Your task to perform on an android device: Go to privacy settings Image 0: 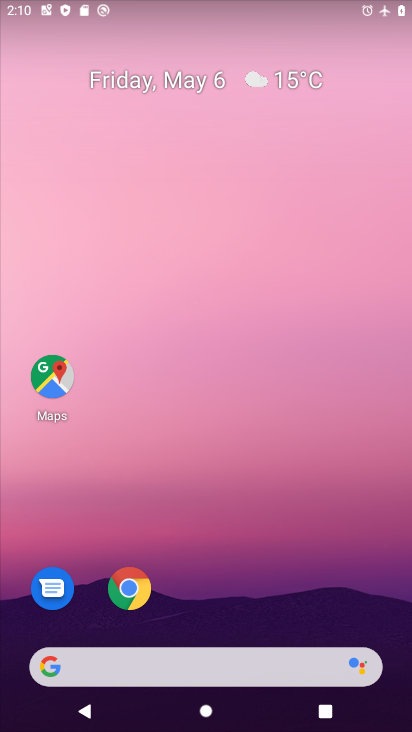
Step 0: drag from (217, 609) to (235, 126)
Your task to perform on an android device: Go to privacy settings Image 1: 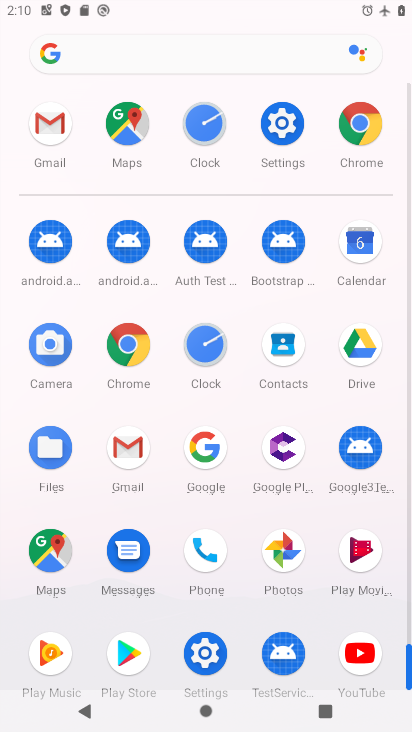
Step 1: click (273, 123)
Your task to perform on an android device: Go to privacy settings Image 2: 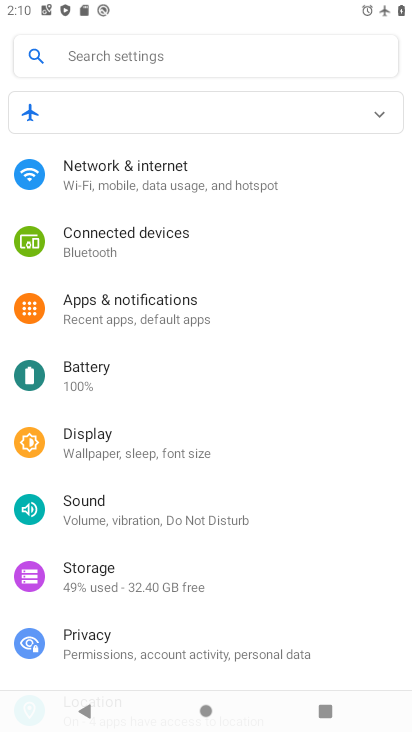
Step 2: drag from (170, 527) to (283, 162)
Your task to perform on an android device: Go to privacy settings Image 3: 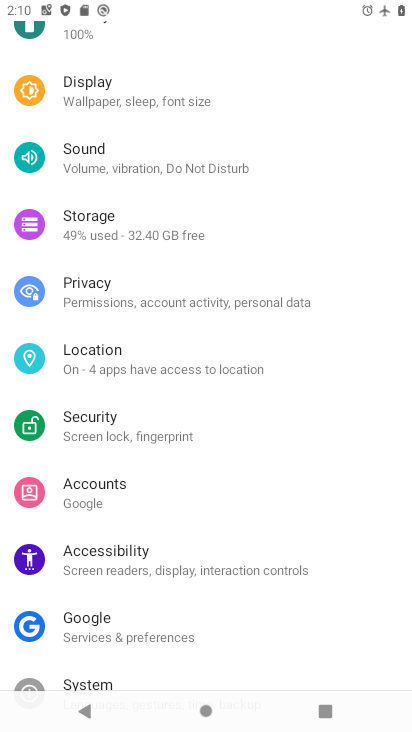
Step 3: click (137, 282)
Your task to perform on an android device: Go to privacy settings Image 4: 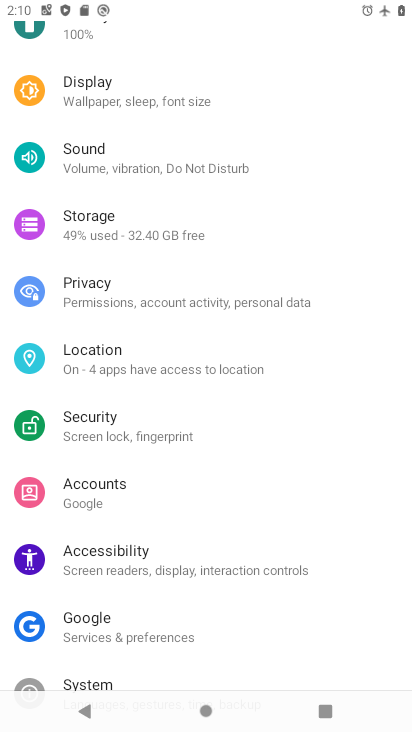
Step 4: click (137, 282)
Your task to perform on an android device: Go to privacy settings Image 5: 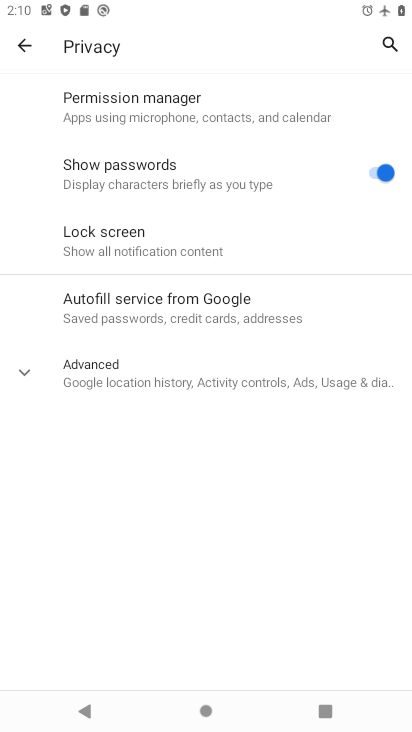
Step 5: task complete